Your task to perform on an android device: open app "Pinterest" (install if not already installed) and enter user name: "Switzerland@yahoo.com" and password: "arithmetics" Image 0: 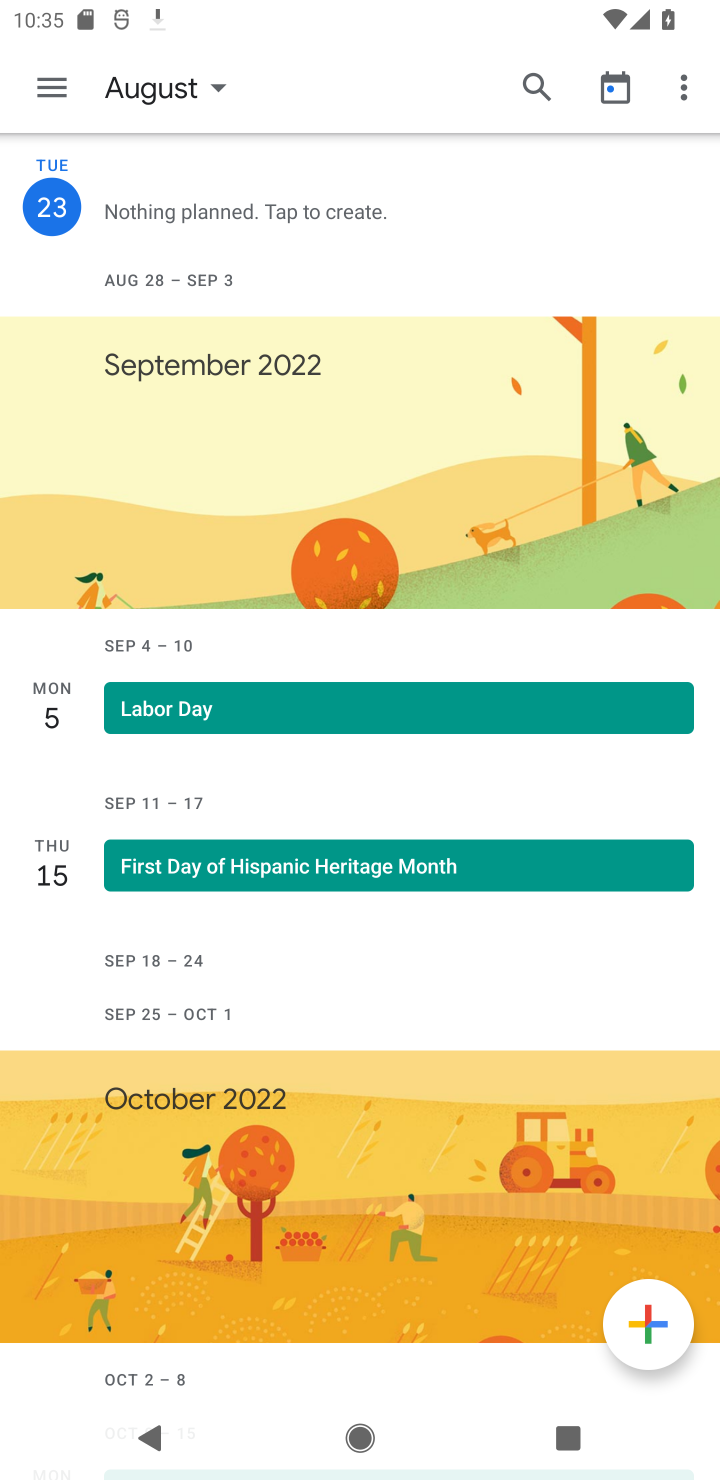
Step 0: press home button
Your task to perform on an android device: open app "Pinterest" (install if not already installed) and enter user name: "Switzerland@yahoo.com" and password: "arithmetics" Image 1: 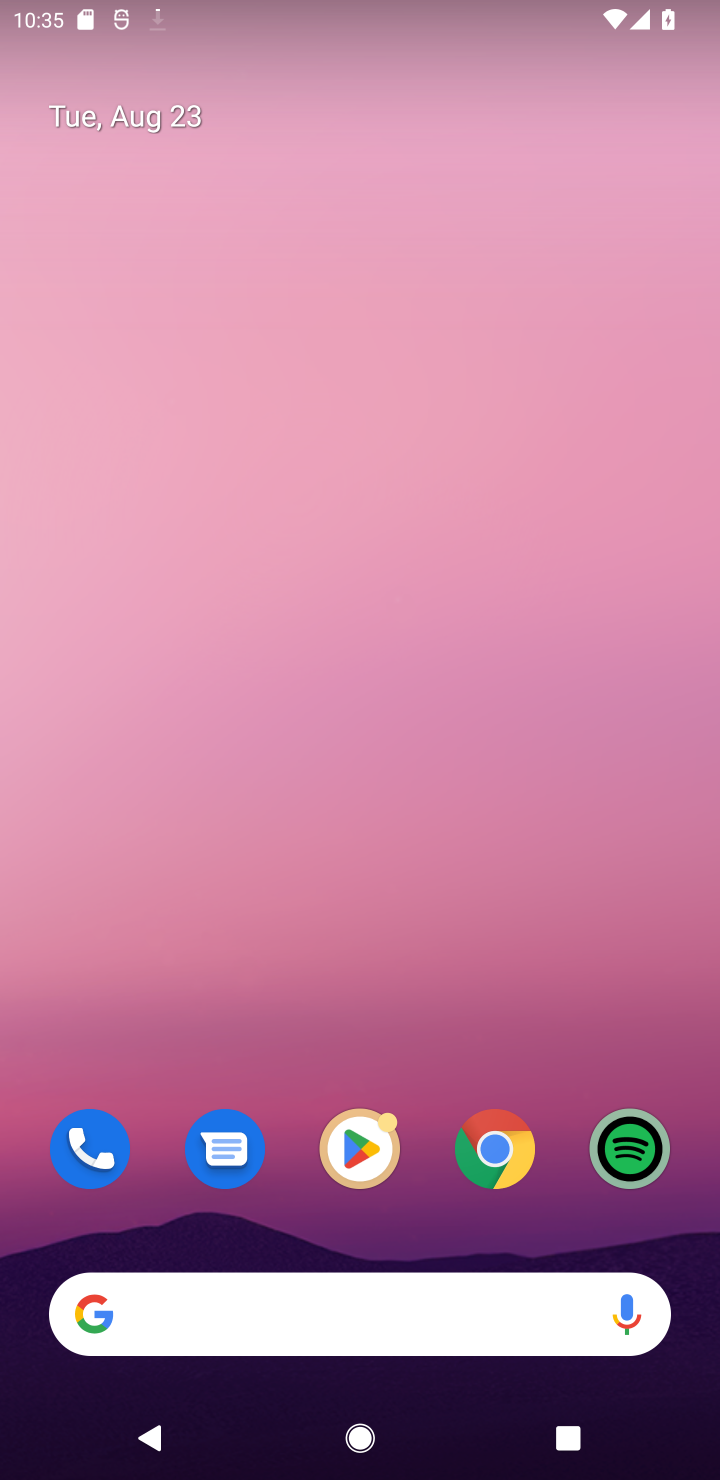
Step 1: click (357, 1169)
Your task to perform on an android device: open app "Pinterest" (install if not already installed) and enter user name: "Switzerland@yahoo.com" and password: "arithmetics" Image 2: 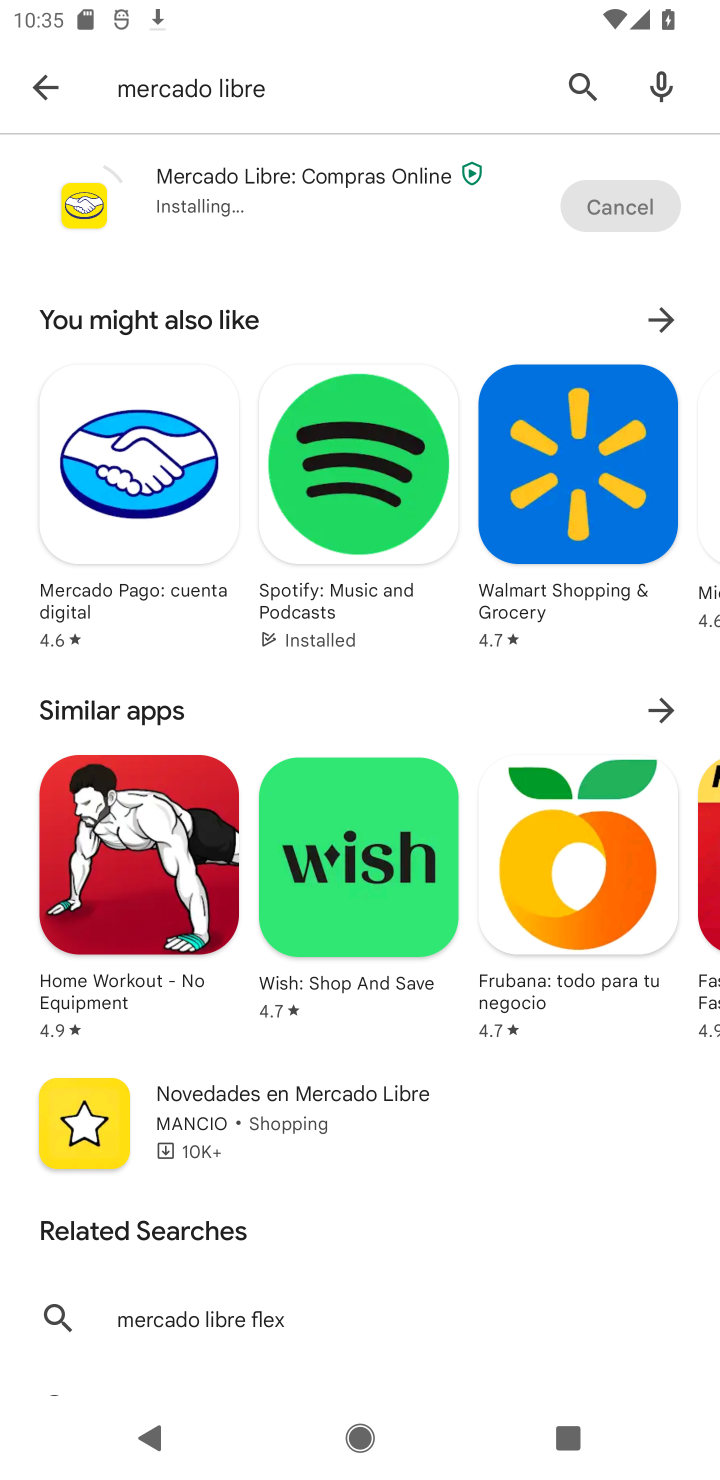
Step 2: click (562, 103)
Your task to perform on an android device: open app "Pinterest" (install if not already installed) and enter user name: "Switzerland@yahoo.com" and password: "arithmetics" Image 3: 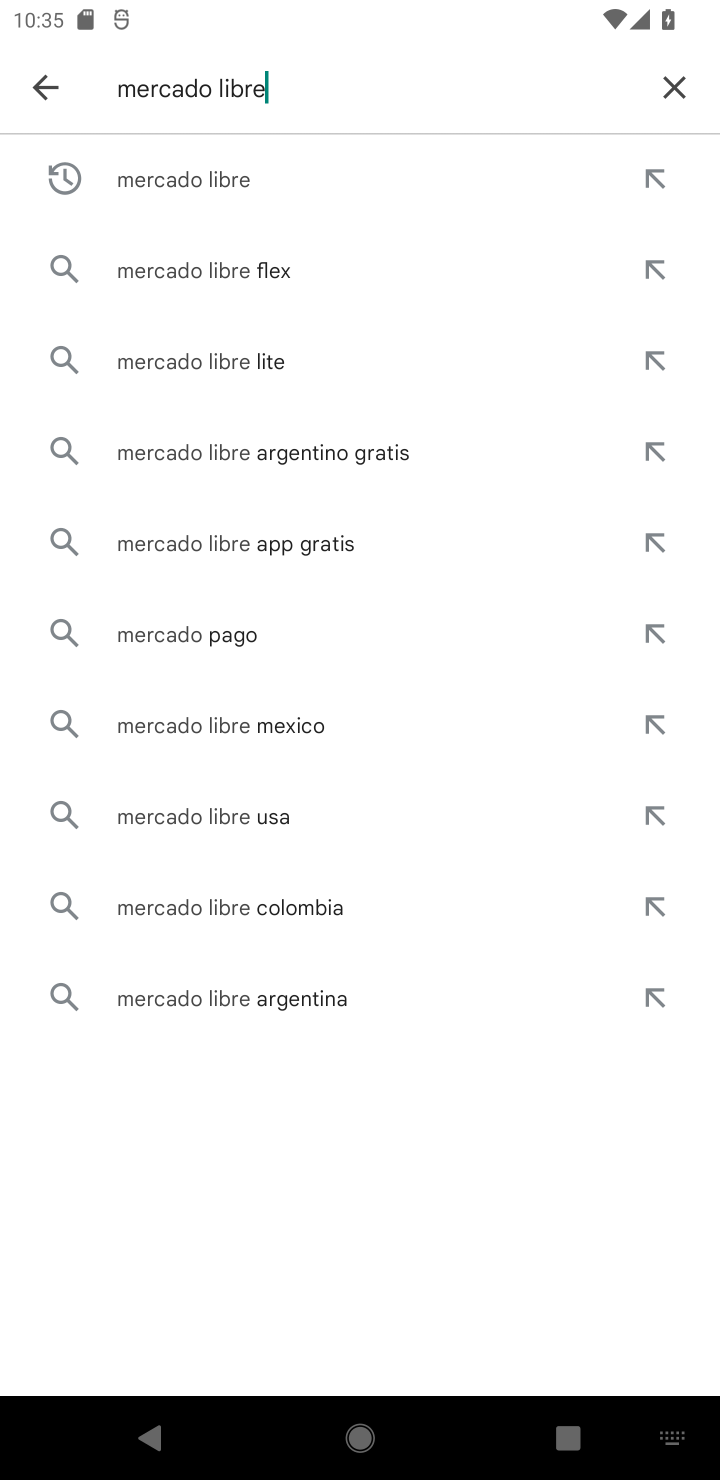
Step 3: click (671, 95)
Your task to perform on an android device: open app "Pinterest" (install if not already installed) and enter user name: "Switzerland@yahoo.com" and password: "arithmetics" Image 4: 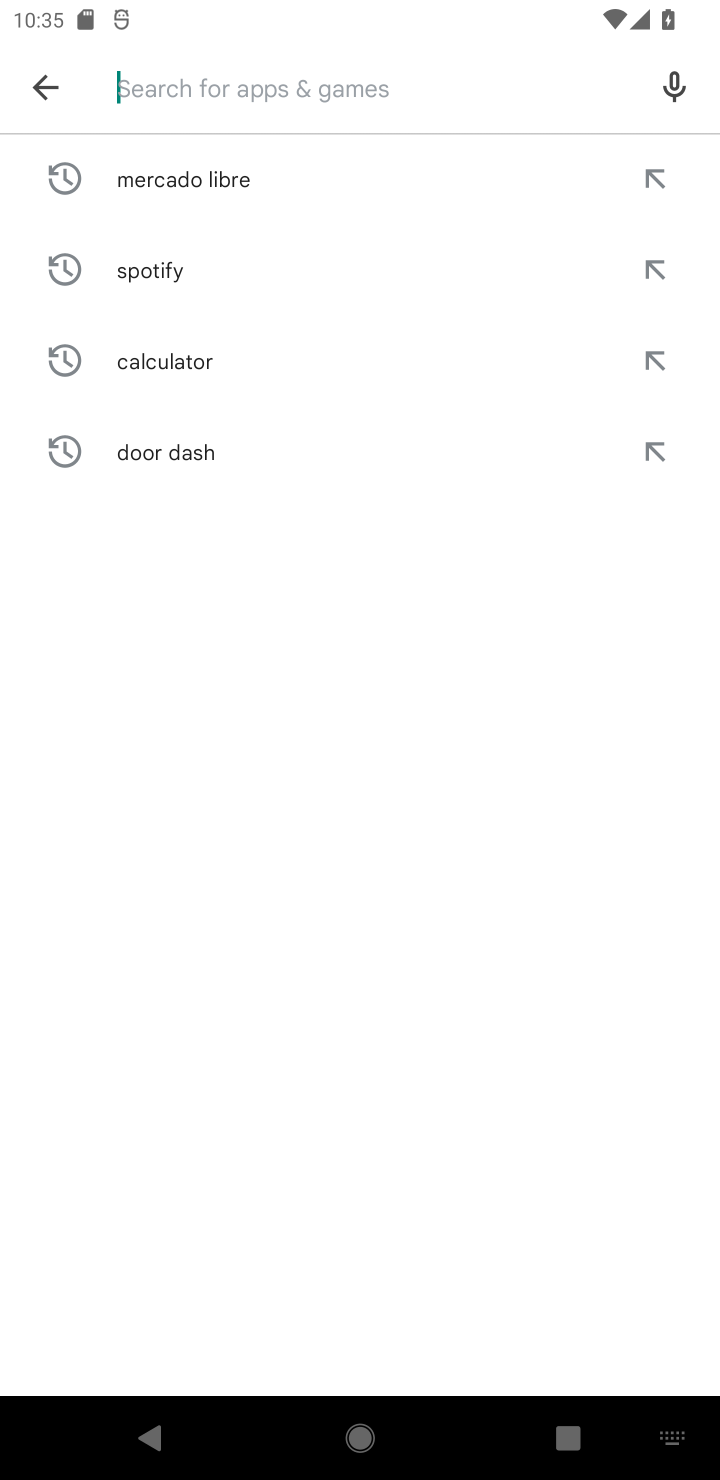
Step 4: type "pintrest"
Your task to perform on an android device: open app "Pinterest" (install if not already installed) and enter user name: "Switzerland@yahoo.com" and password: "arithmetics" Image 5: 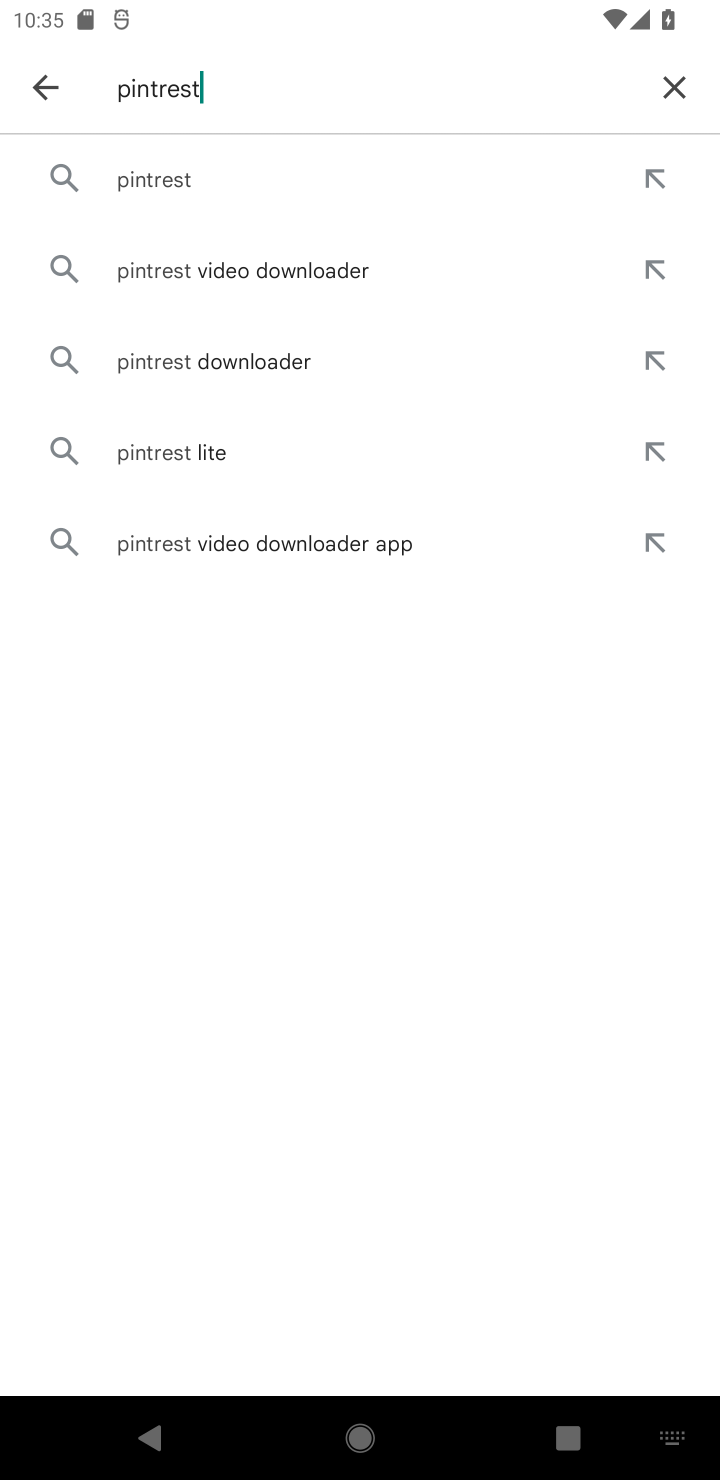
Step 5: click (306, 213)
Your task to perform on an android device: open app "Pinterest" (install if not already installed) and enter user name: "Switzerland@yahoo.com" and password: "arithmetics" Image 6: 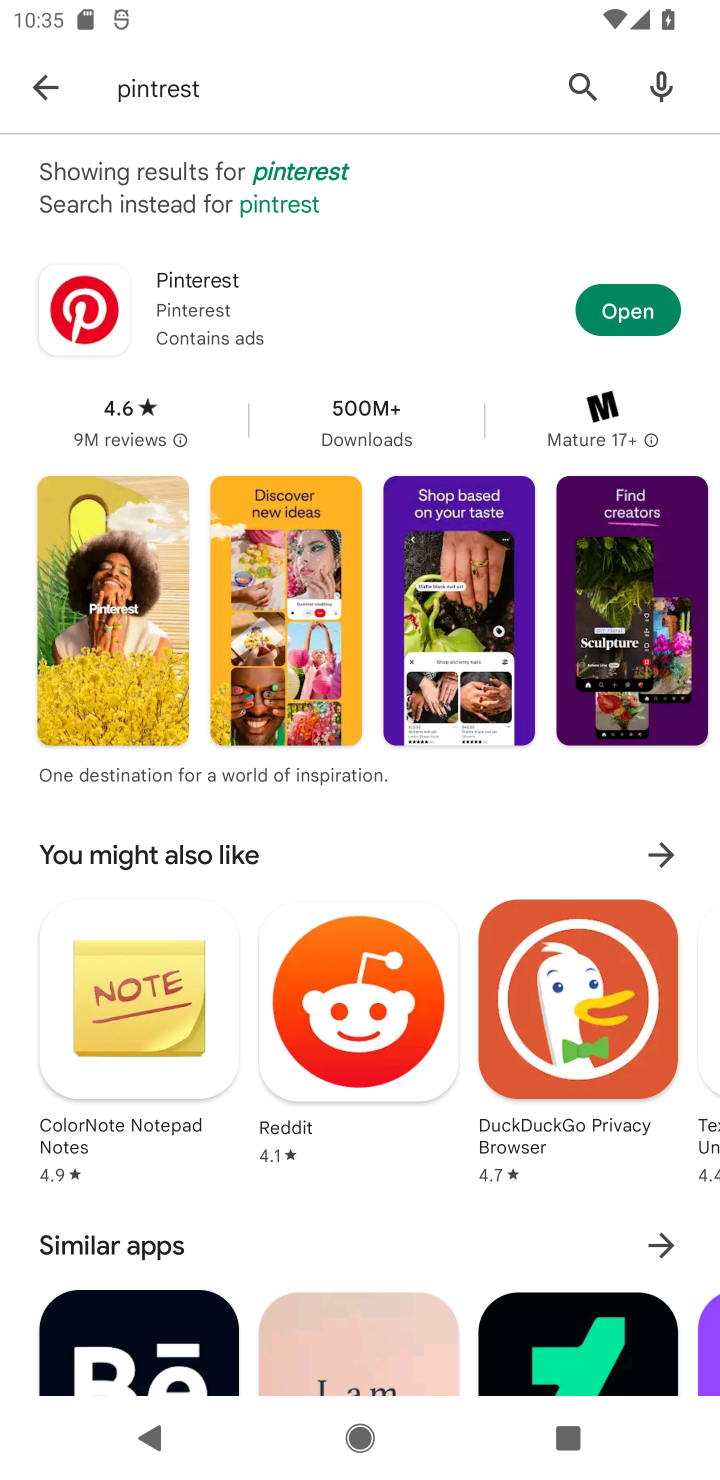
Step 6: click (605, 315)
Your task to perform on an android device: open app "Pinterest" (install if not already installed) and enter user name: "Switzerland@yahoo.com" and password: "arithmetics" Image 7: 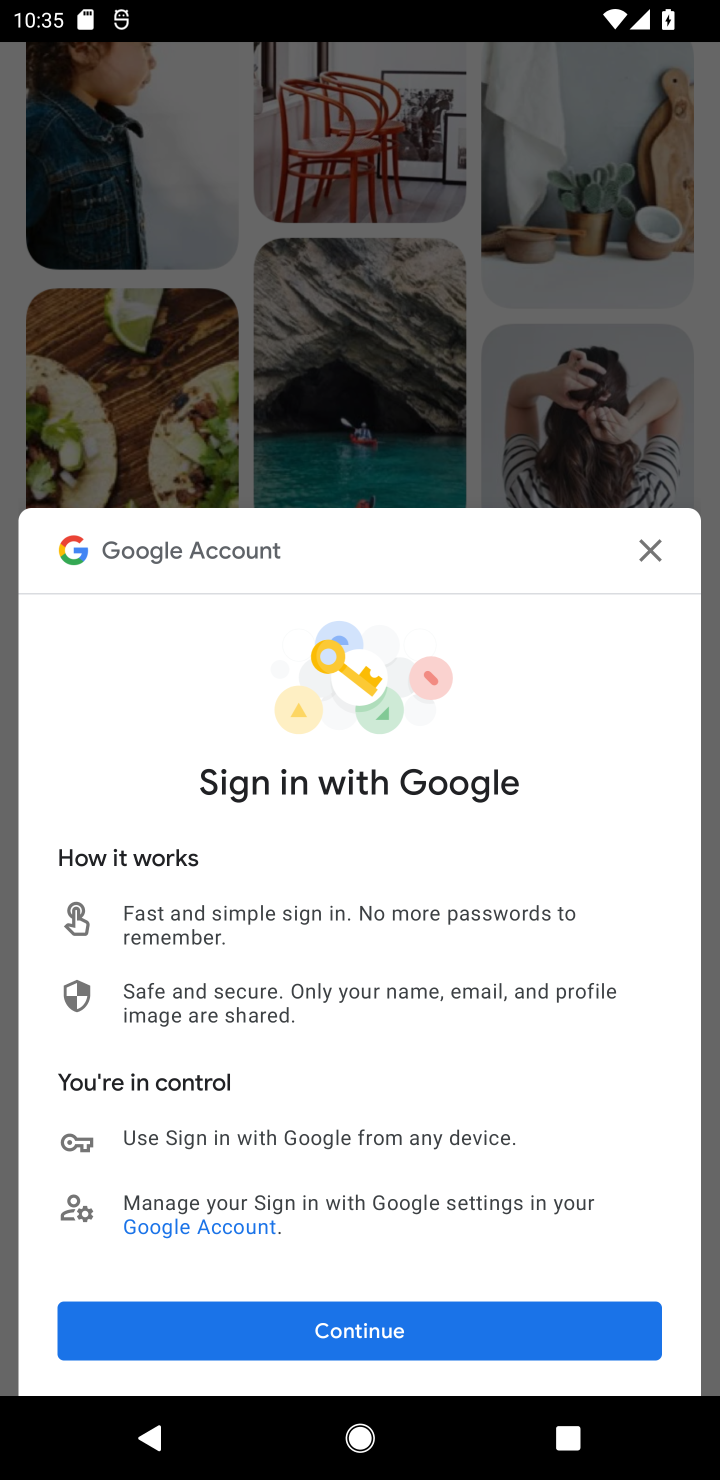
Step 7: click (353, 1307)
Your task to perform on an android device: open app "Pinterest" (install if not already installed) and enter user name: "Switzerland@yahoo.com" and password: "arithmetics" Image 8: 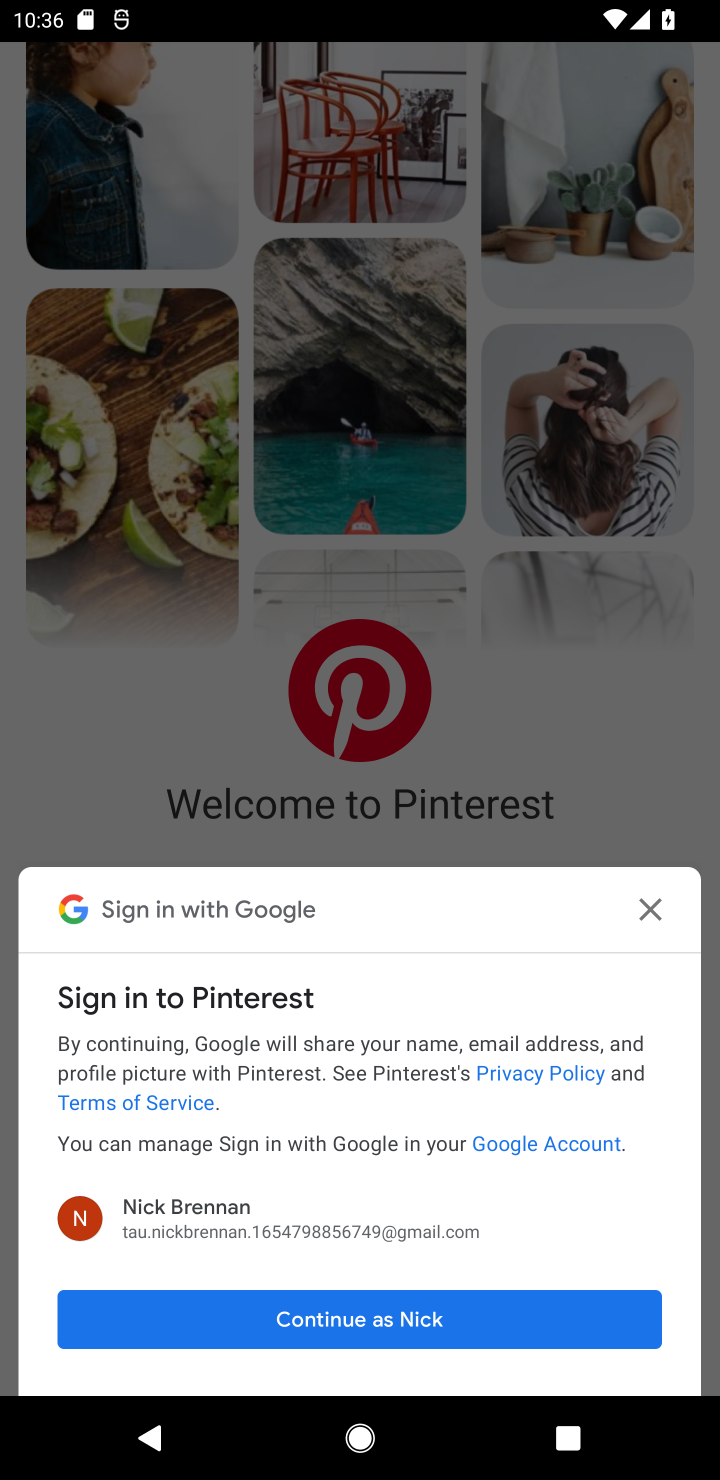
Step 8: click (419, 1325)
Your task to perform on an android device: open app "Pinterest" (install if not already installed) and enter user name: "Switzerland@yahoo.com" and password: "arithmetics" Image 9: 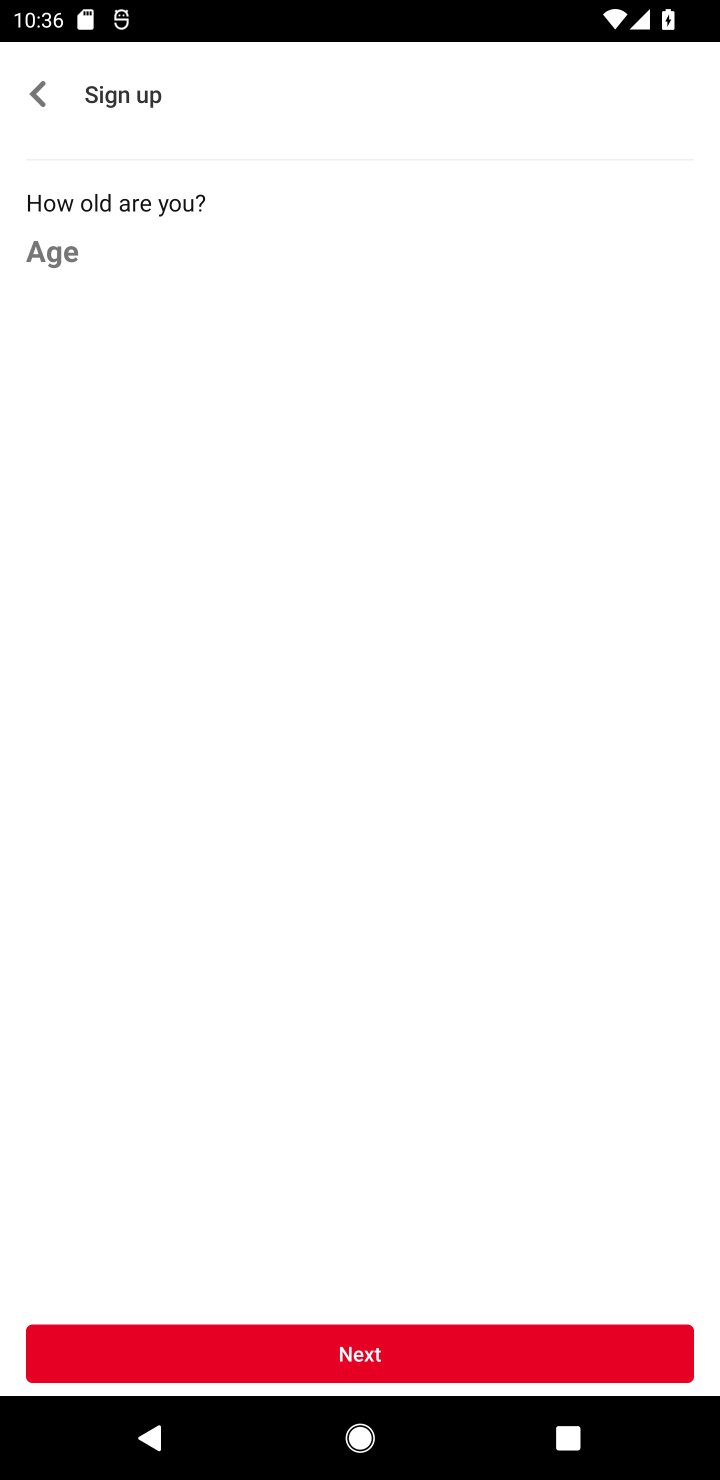
Step 9: click (41, 103)
Your task to perform on an android device: open app "Pinterest" (install if not already installed) and enter user name: "Switzerland@yahoo.com" and password: "arithmetics" Image 10: 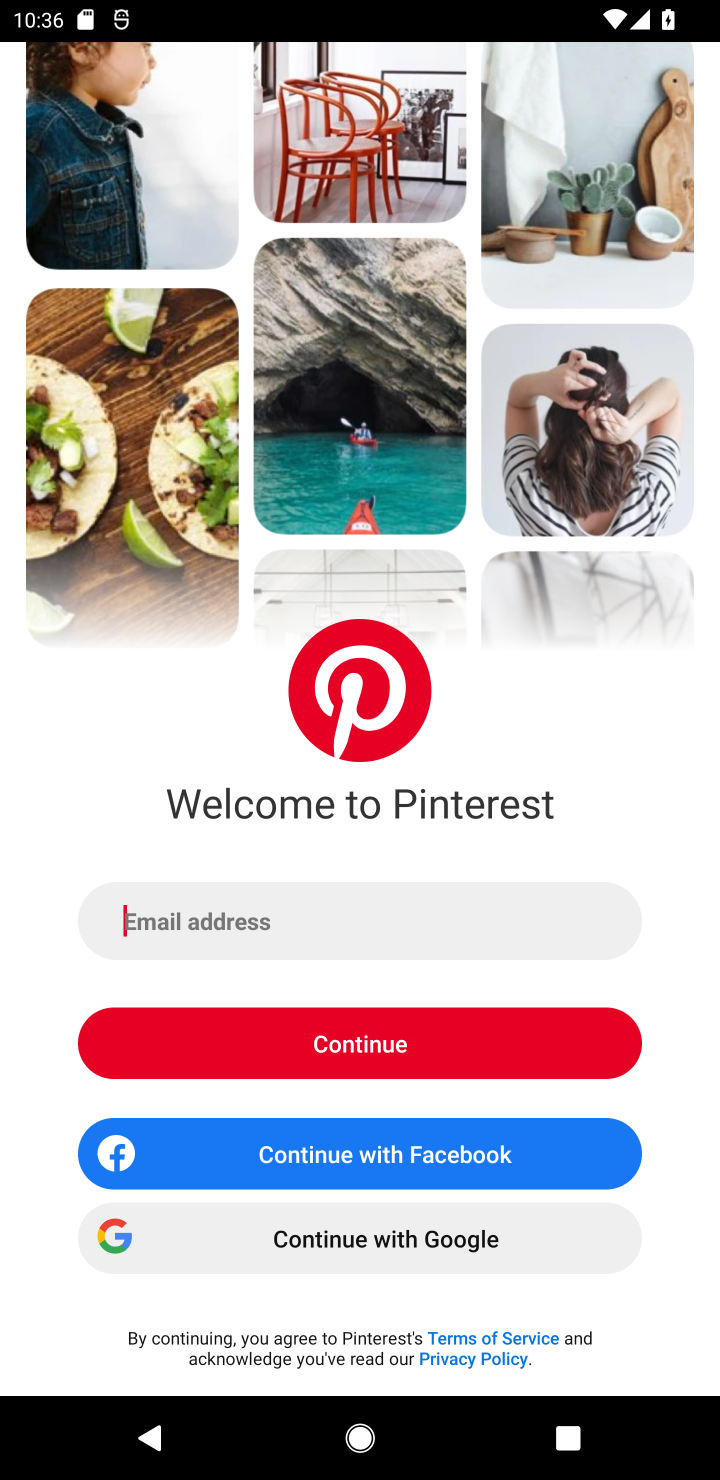
Step 10: type "Switzerland@yahoo.com"
Your task to perform on an android device: open app "Pinterest" (install if not already installed) and enter user name: "Switzerland@yahoo.com" and password: "arithmetics" Image 11: 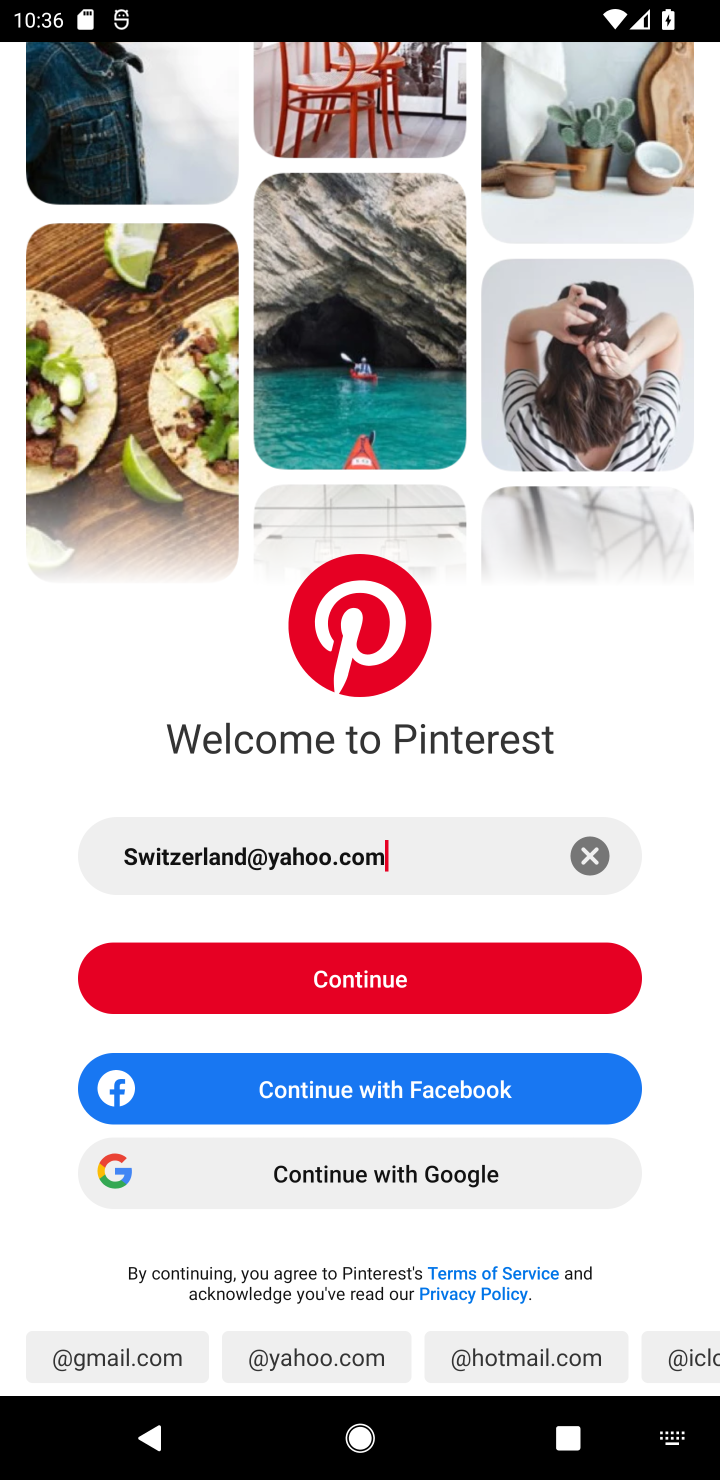
Step 11: click (464, 980)
Your task to perform on an android device: open app "Pinterest" (install if not already installed) and enter user name: "Switzerland@yahoo.com" and password: "arithmetics" Image 12: 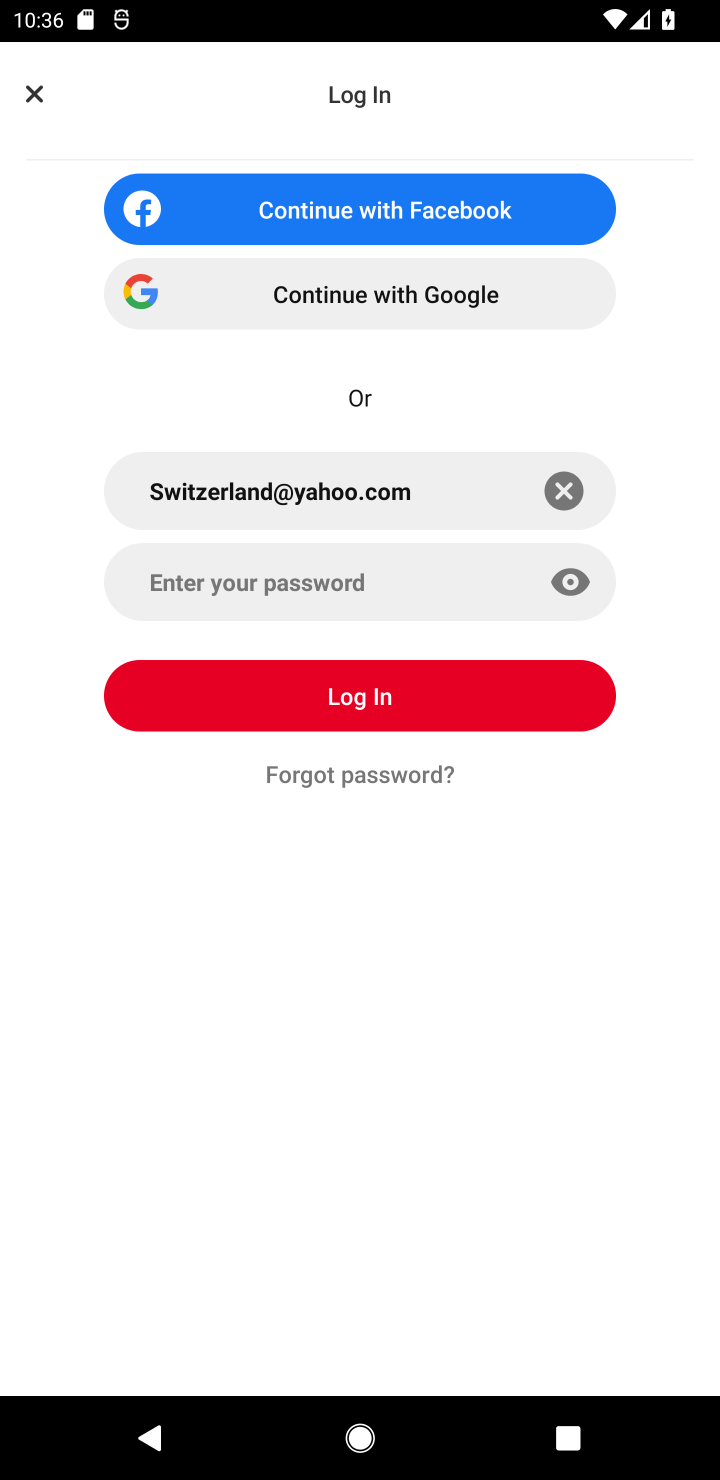
Step 12: click (258, 584)
Your task to perform on an android device: open app "Pinterest" (install if not already installed) and enter user name: "Switzerland@yahoo.com" and password: "arithmetics" Image 13: 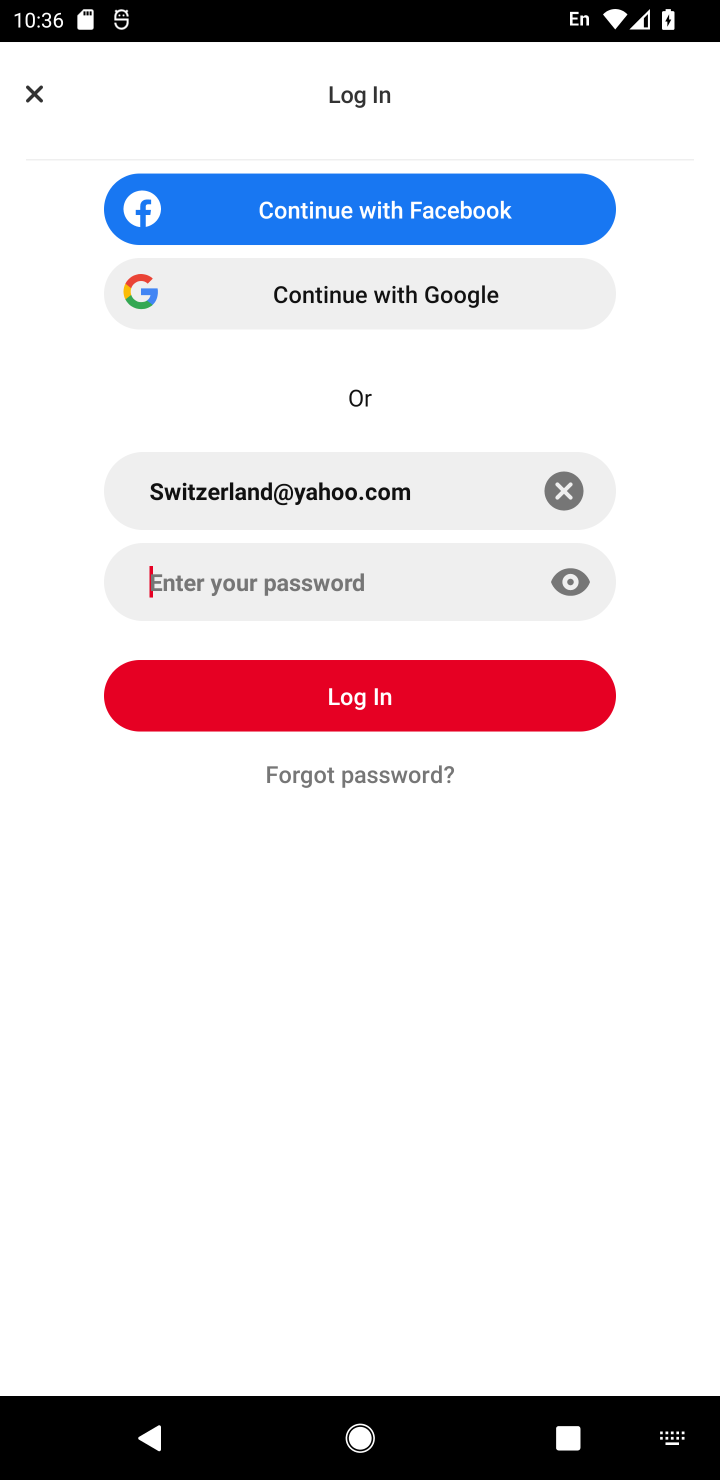
Step 13: type "arithmetics"
Your task to perform on an android device: open app "Pinterest" (install if not already installed) and enter user name: "Switzerland@yahoo.com" and password: "arithmetics" Image 14: 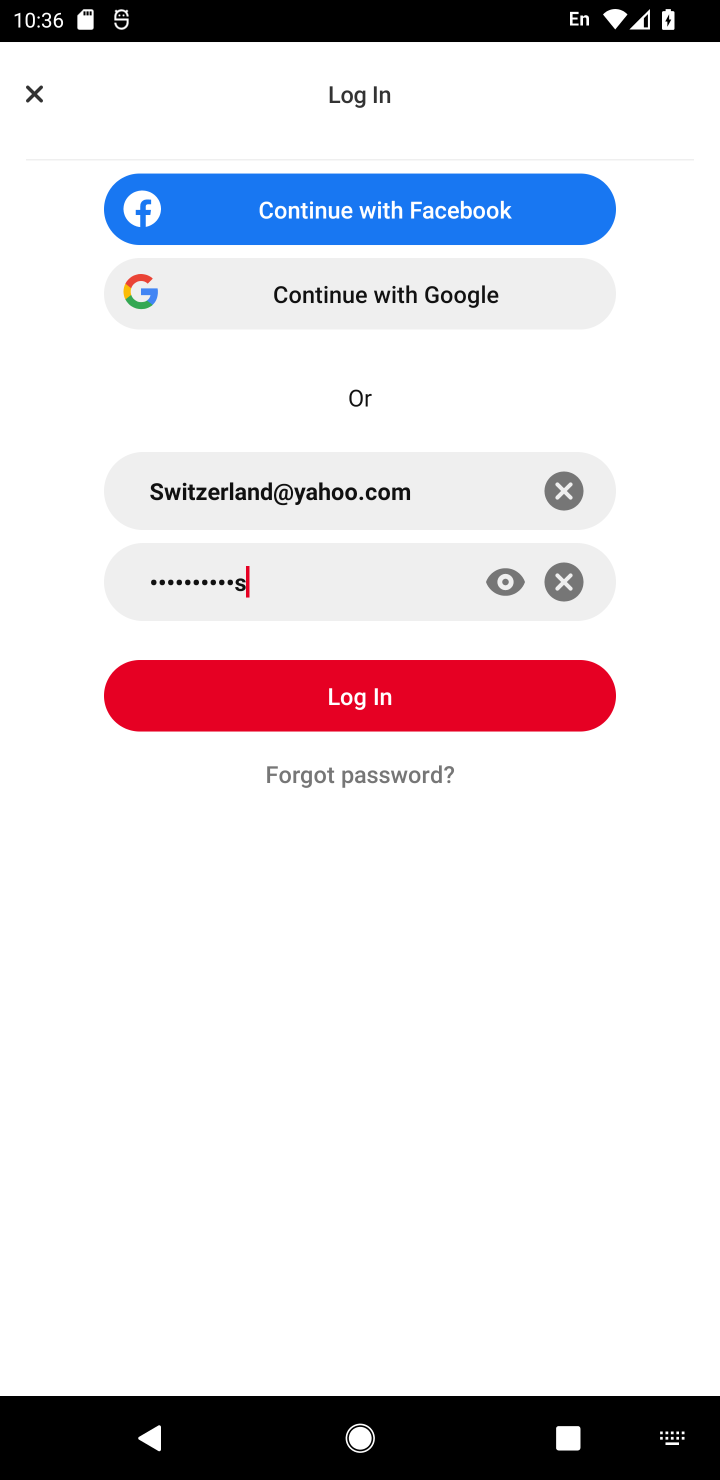
Step 14: click (411, 699)
Your task to perform on an android device: open app "Pinterest" (install if not already installed) and enter user name: "Switzerland@yahoo.com" and password: "arithmetics" Image 15: 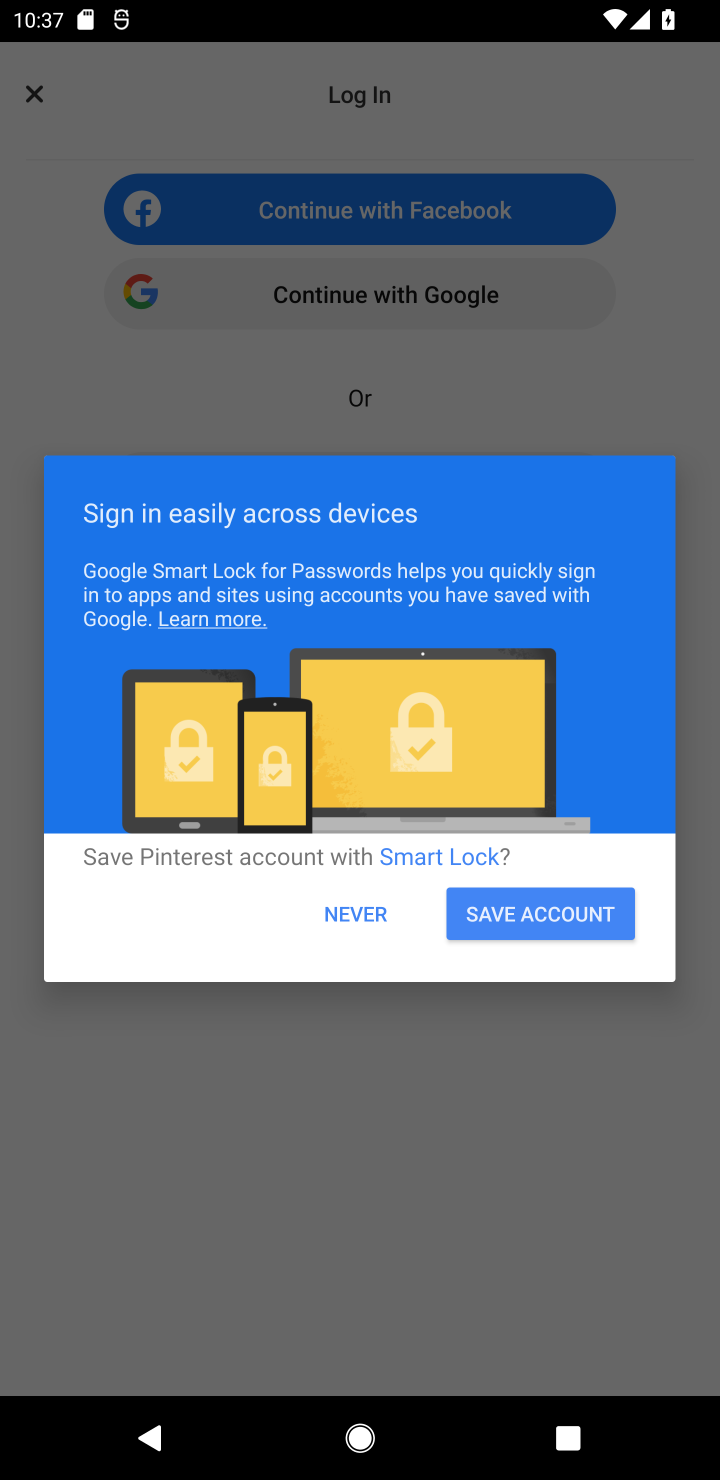
Step 15: click (350, 910)
Your task to perform on an android device: open app "Pinterest" (install if not already installed) and enter user name: "Switzerland@yahoo.com" and password: "arithmetics" Image 16: 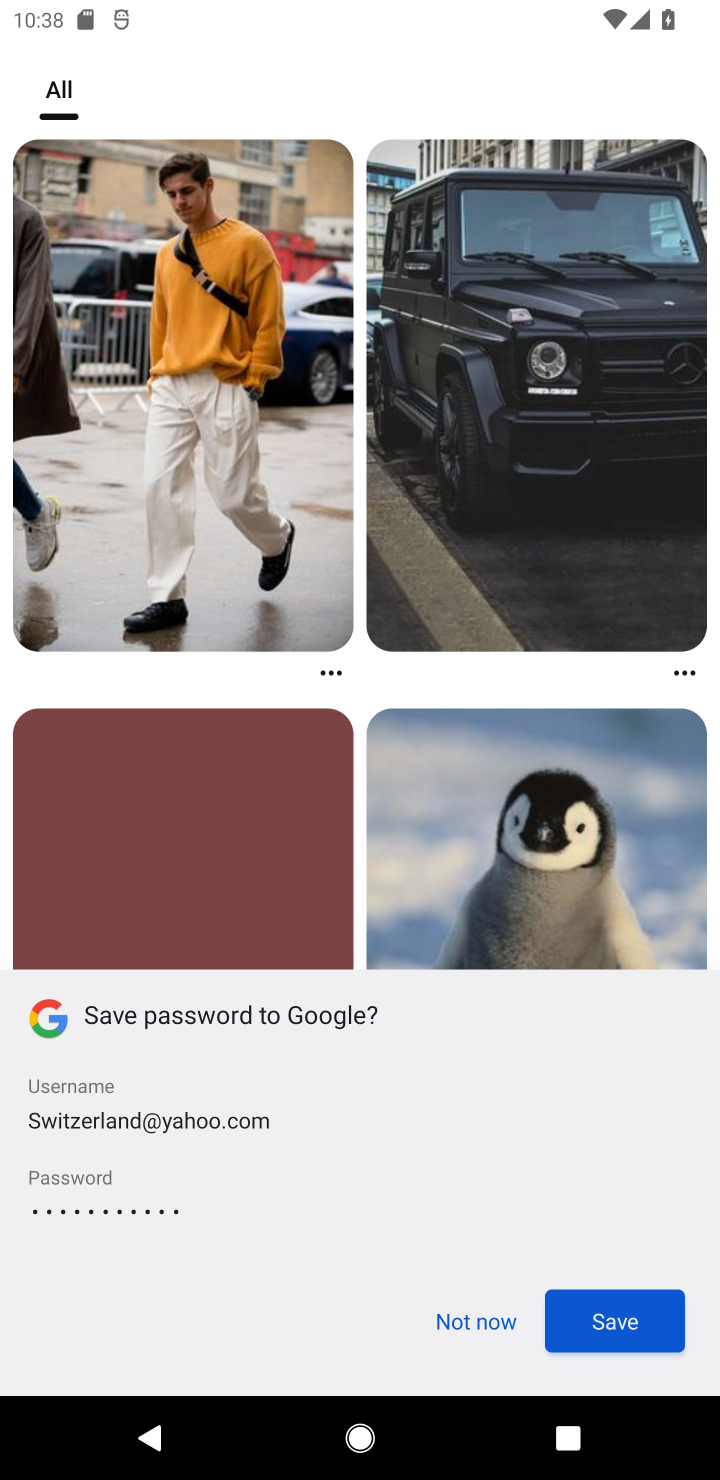
Step 16: task complete